Your task to perform on an android device: Go to battery settings Image 0: 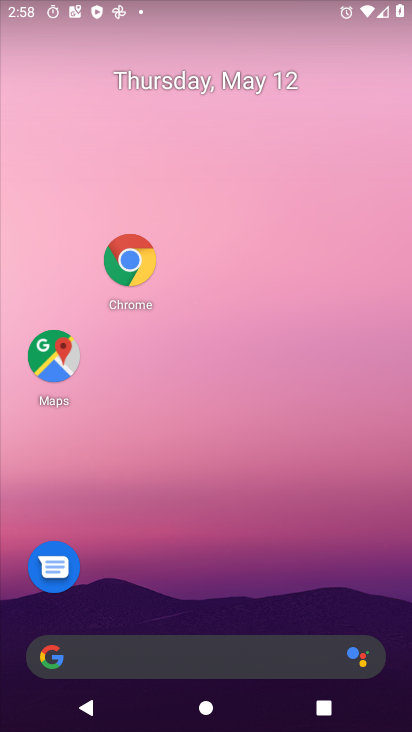
Step 0: click (248, 203)
Your task to perform on an android device: Go to battery settings Image 1: 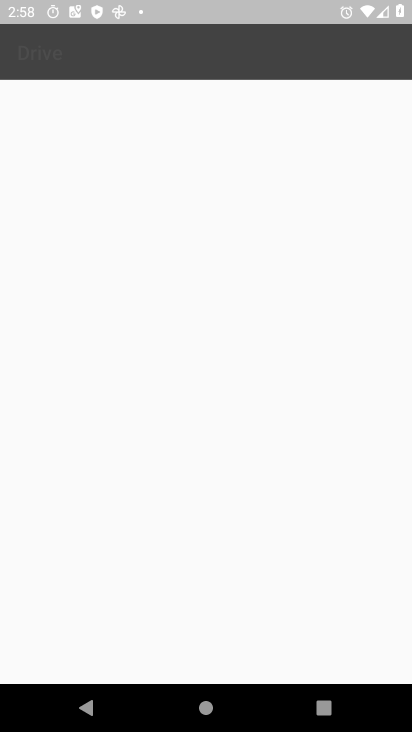
Step 1: press home button
Your task to perform on an android device: Go to battery settings Image 2: 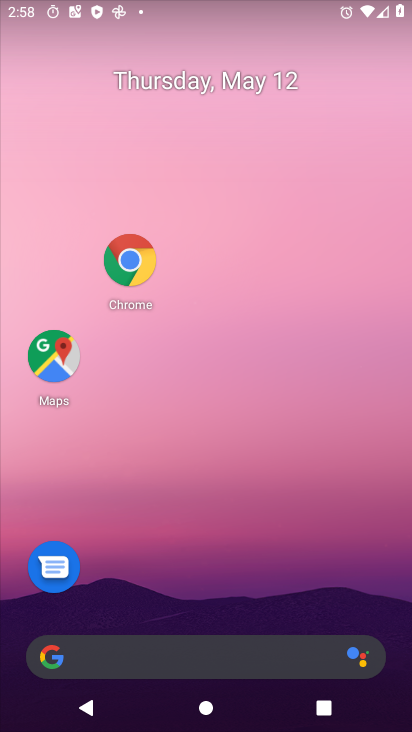
Step 2: drag from (208, 624) to (296, 200)
Your task to perform on an android device: Go to battery settings Image 3: 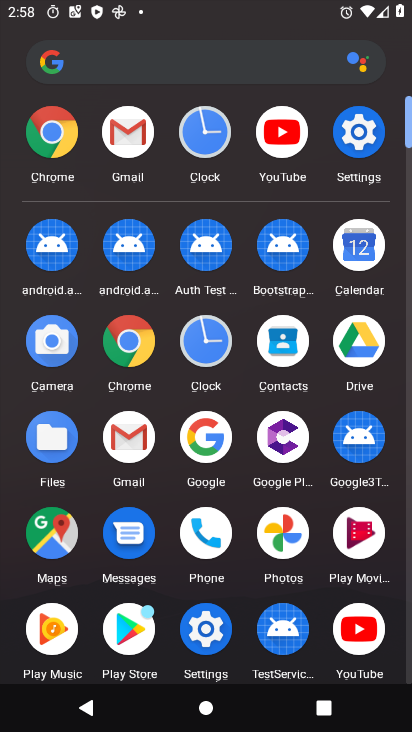
Step 3: click (364, 133)
Your task to perform on an android device: Go to battery settings Image 4: 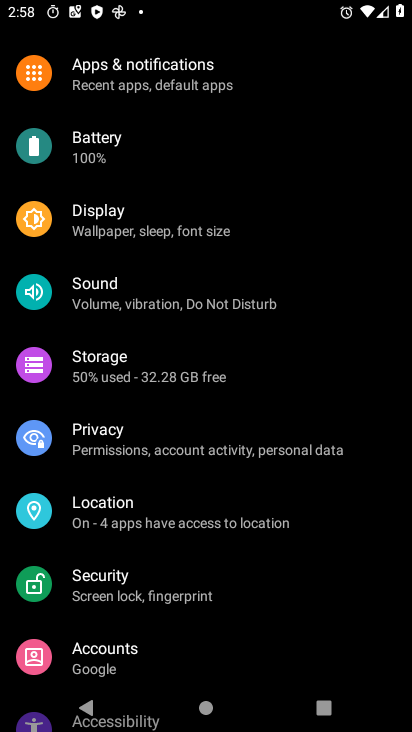
Step 4: click (131, 152)
Your task to perform on an android device: Go to battery settings Image 5: 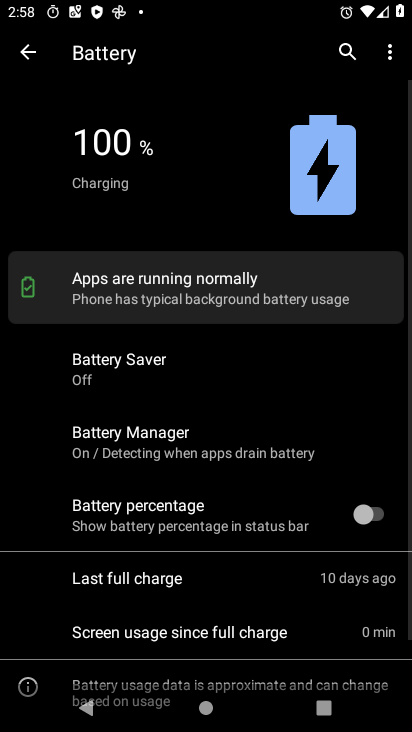
Step 5: task complete